Your task to perform on an android device: open wifi settings Image 0: 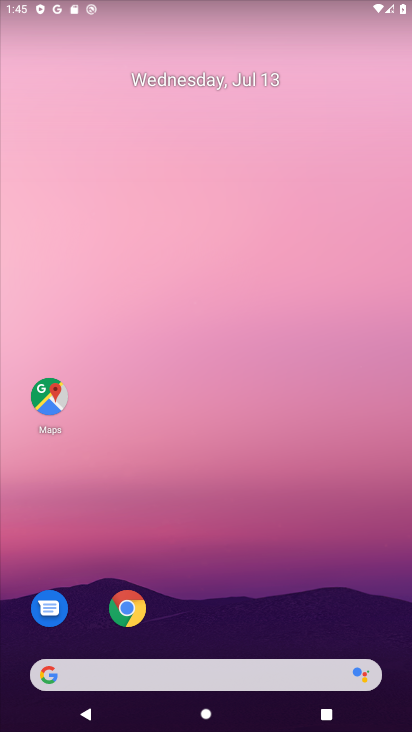
Step 0: drag from (142, 69) to (166, 552)
Your task to perform on an android device: open wifi settings Image 1: 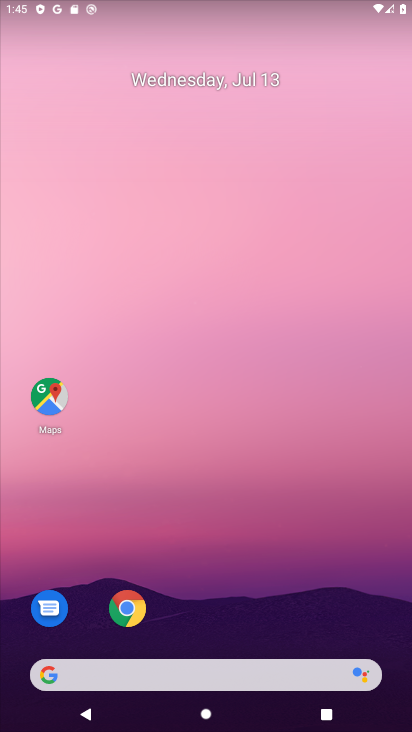
Step 1: drag from (100, 6) to (185, 405)
Your task to perform on an android device: open wifi settings Image 2: 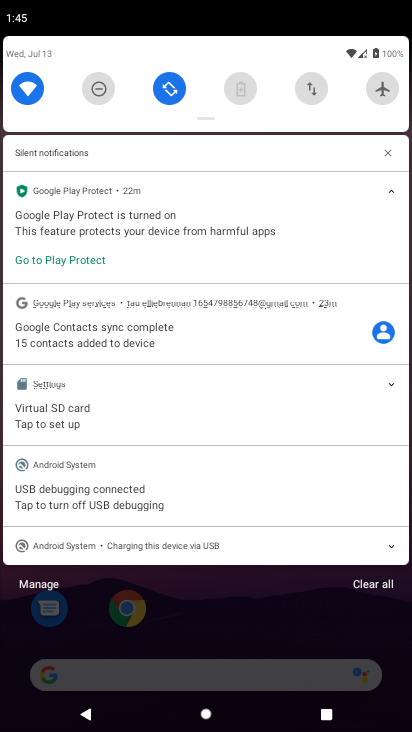
Step 2: click (26, 82)
Your task to perform on an android device: open wifi settings Image 3: 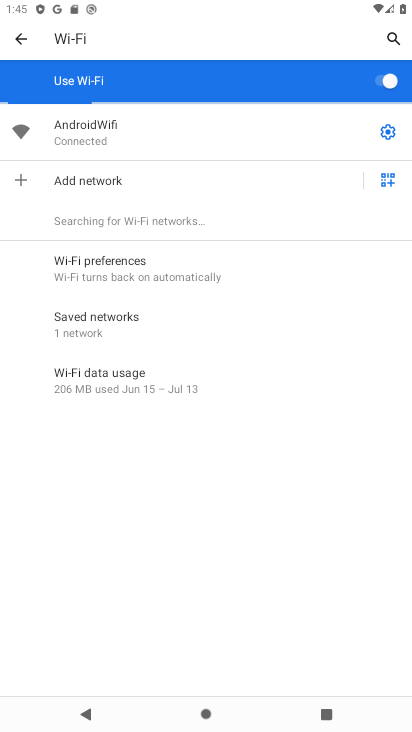
Step 3: task complete